Your task to perform on an android device: turn on airplane mode Image 0: 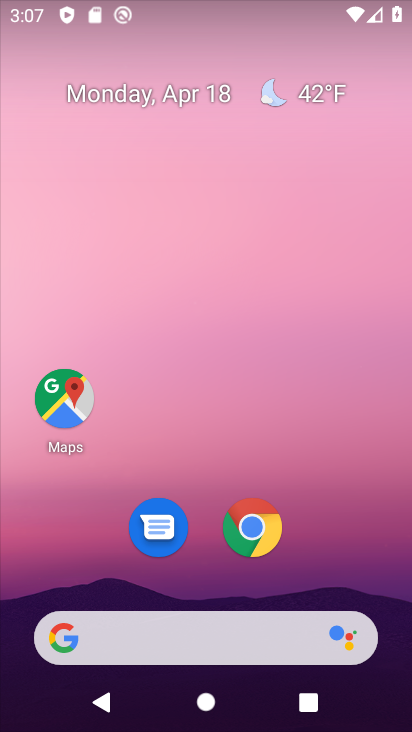
Step 0: drag from (257, 446) to (266, 21)
Your task to perform on an android device: turn on airplane mode Image 1: 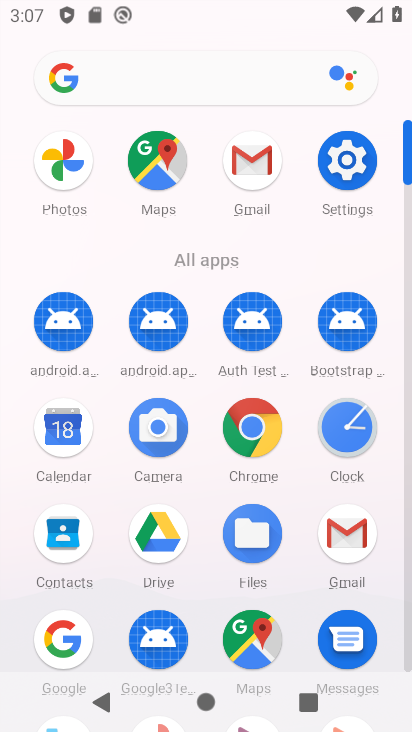
Step 1: click (339, 160)
Your task to perform on an android device: turn on airplane mode Image 2: 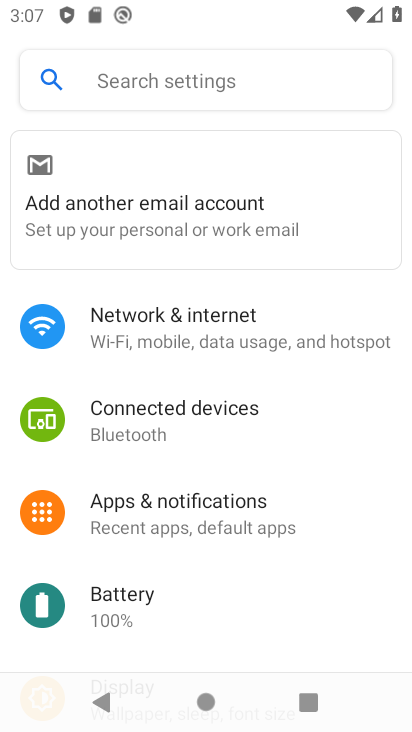
Step 2: drag from (183, 592) to (189, 291)
Your task to perform on an android device: turn on airplane mode Image 3: 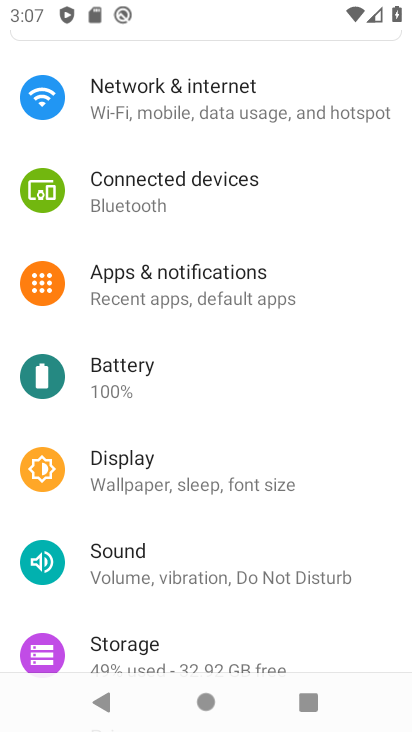
Step 3: click (208, 103)
Your task to perform on an android device: turn on airplane mode Image 4: 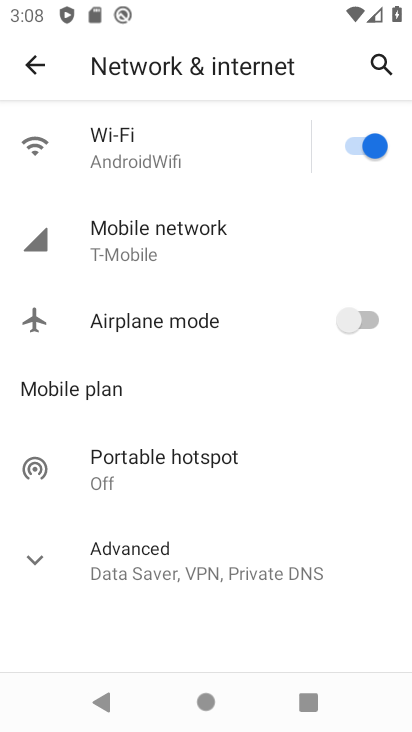
Step 4: click (360, 322)
Your task to perform on an android device: turn on airplane mode Image 5: 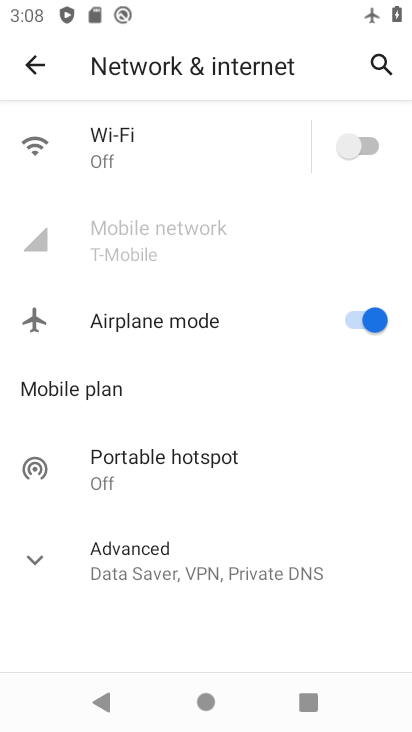
Step 5: task complete